Your task to perform on an android device: Search for the new iphone 13 pro on Etsy. Image 0: 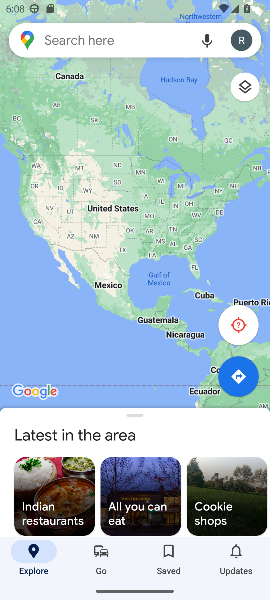
Step 0: press home button
Your task to perform on an android device: Search for the new iphone 13 pro on Etsy. Image 1: 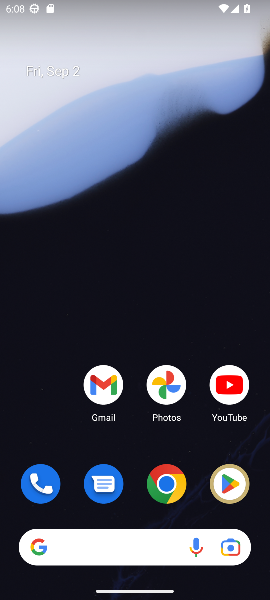
Step 1: click (166, 489)
Your task to perform on an android device: Search for the new iphone 13 pro on Etsy. Image 2: 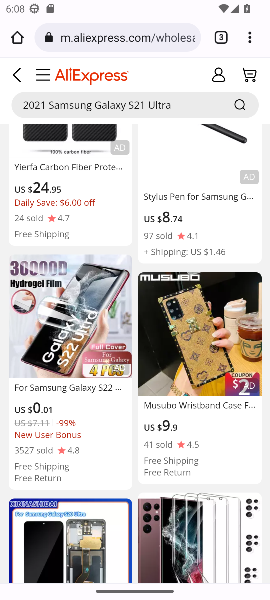
Step 2: click (131, 39)
Your task to perform on an android device: Search for the new iphone 13 pro on Etsy. Image 3: 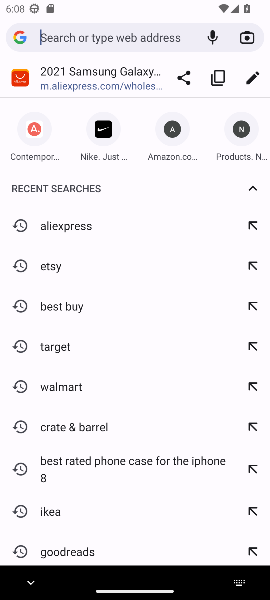
Step 3: type " Etsy"
Your task to perform on an android device: Search for the new iphone 13 pro on Etsy. Image 4: 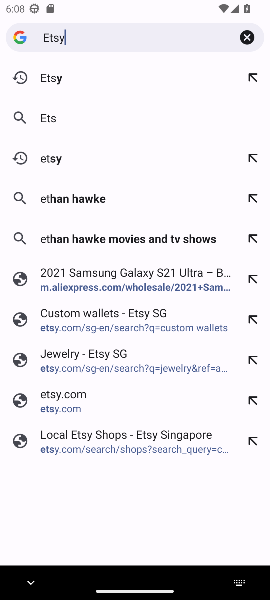
Step 4: press enter
Your task to perform on an android device: Search for the new iphone 13 pro on Etsy. Image 5: 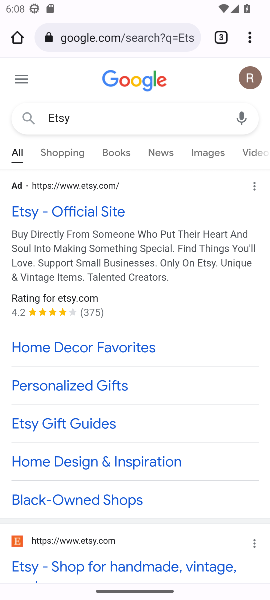
Step 5: click (90, 214)
Your task to perform on an android device: Search for the new iphone 13 pro on Etsy. Image 6: 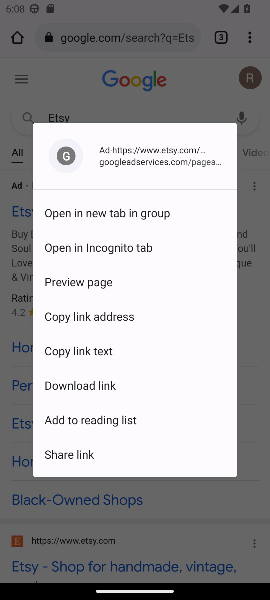
Step 6: click (249, 360)
Your task to perform on an android device: Search for the new iphone 13 pro on Etsy. Image 7: 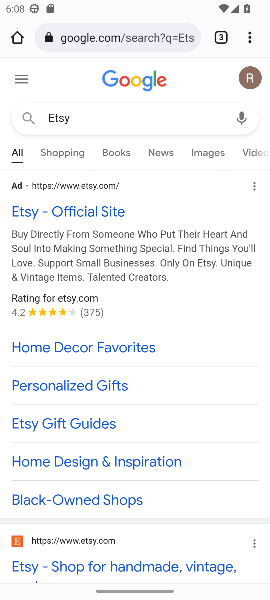
Step 7: click (67, 210)
Your task to perform on an android device: Search for the new iphone 13 pro on Etsy. Image 8: 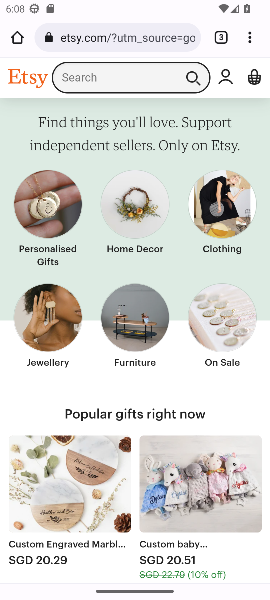
Step 8: click (104, 75)
Your task to perform on an android device: Search for the new iphone 13 pro on Etsy. Image 9: 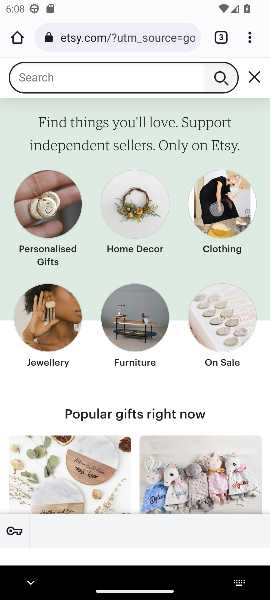
Step 9: type "iphone 13 pro "
Your task to perform on an android device: Search for the new iphone 13 pro on Etsy. Image 10: 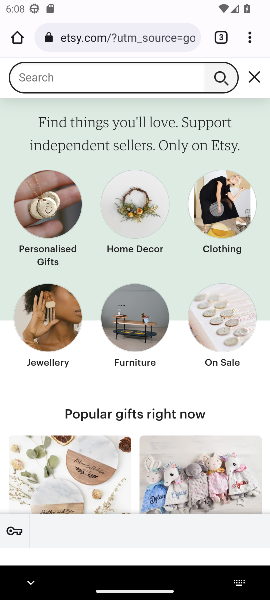
Step 10: press enter
Your task to perform on an android device: Search for the new iphone 13 pro on Etsy. Image 11: 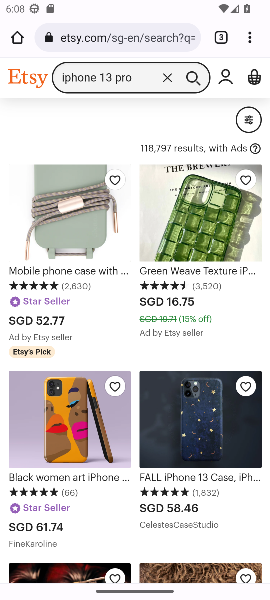
Step 11: click (191, 76)
Your task to perform on an android device: Search for the new iphone 13 pro on Etsy. Image 12: 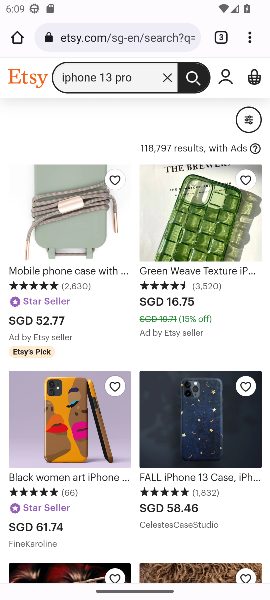
Step 12: click (196, 76)
Your task to perform on an android device: Search for the new iphone 13 pro on Etsy. Image 13: 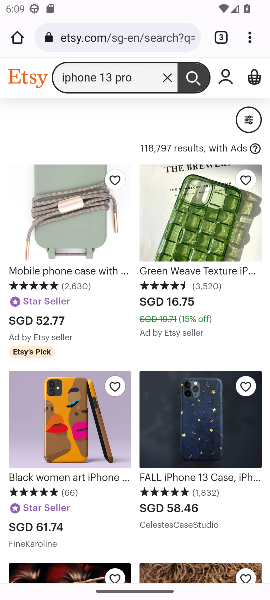
Step 13: drag from (148, 453) to (206, 215)
Your task to perform on an android device: Search for the new iphone 13 pro on Etsy. Image 14: 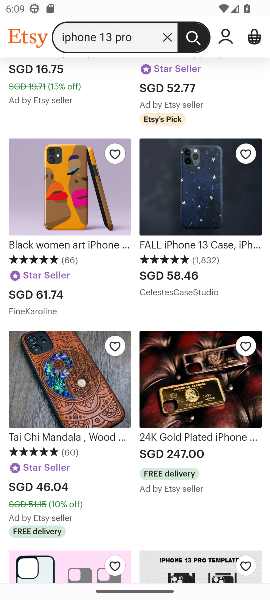
Step 14: drag from (165, 437) to (192, 339)
Your task to perform on an android device: Search for the new iphone 13 pro on Etsy. Image 15: 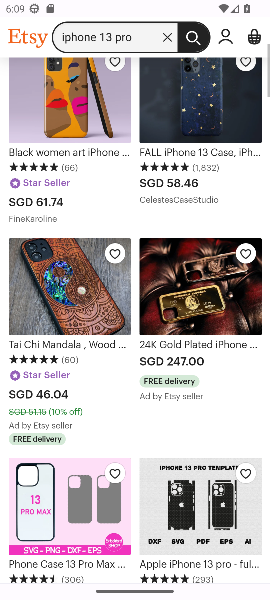
Step 15: drag from (165, 454) to (187, 151)
Your task to perform on an android device: Search for the new iphone 13 pro on Etsy. Image 16: 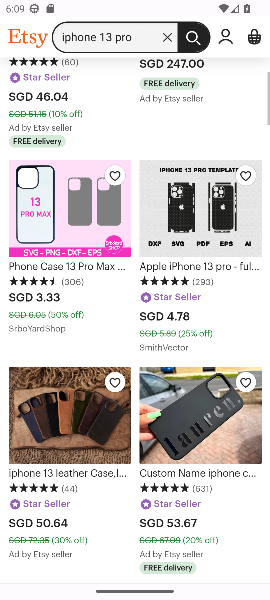
Step 16: drag from (191, 355) to (241, 189)
Your task to perform on an android device: Search for the new iphone 13 pro on Etsy. Image 17: 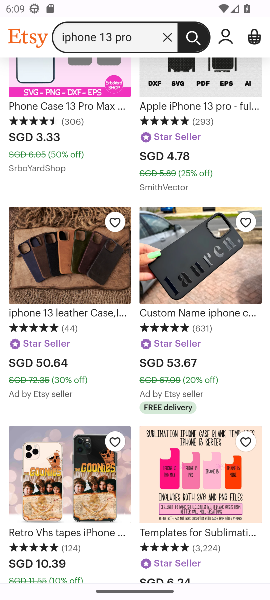
Step 17: drag from (145, 145) to (163, 542)
Your task to perform on an android device: Search for the new iphone 13 pro on Etsy. Image 18: 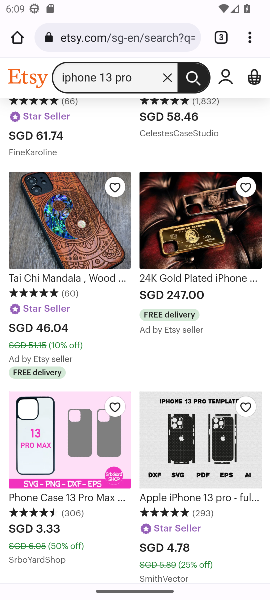
Step 18: drag from (186, 262) to (196, 466)
Your task to perform on an android device: Search for the new iphone 13 pro on Etsy. Image 19: 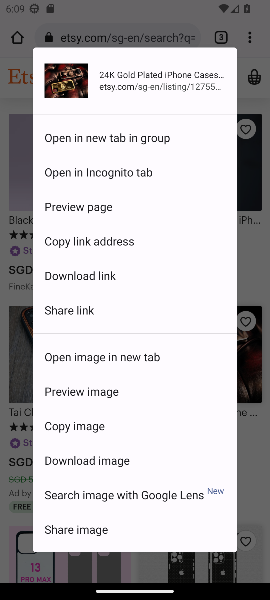
Step 19: click (253, 440)
Your task to perform on an android device: Search for the new iphone 13 pro on Etsy. Image 20: 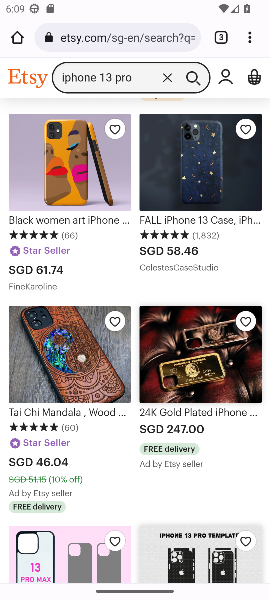
Step 20: task complete